Your task to perform on an android device: Search for "usb-b" on target.com, select the first entry, add it to the cart, then select checkout. Image 0: 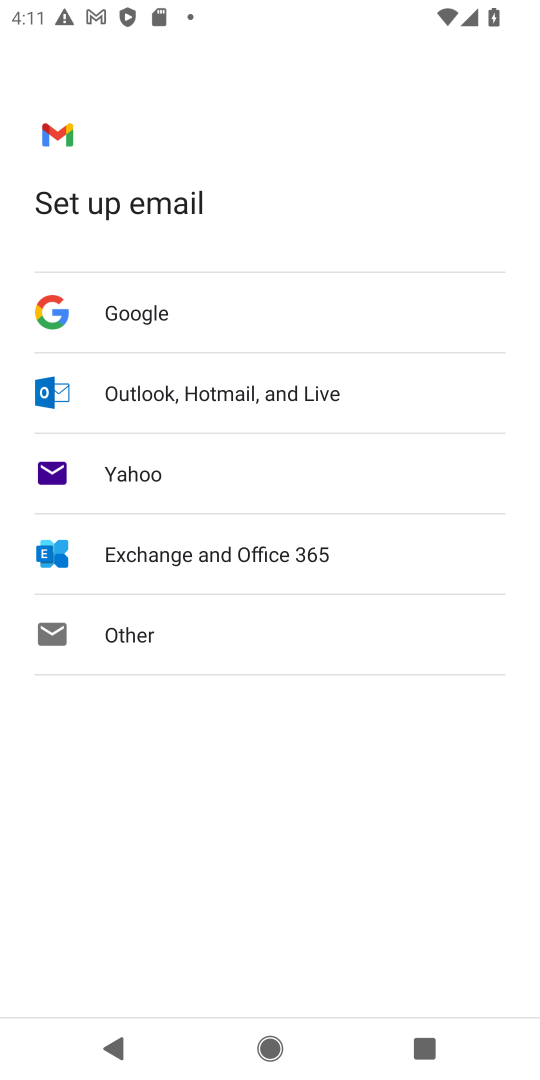
Step 0: press home button
Your task to perform on an android device: Search for "usb-b" on target.com, select the first entry, add it to the cart, then select checkout. Image 1: 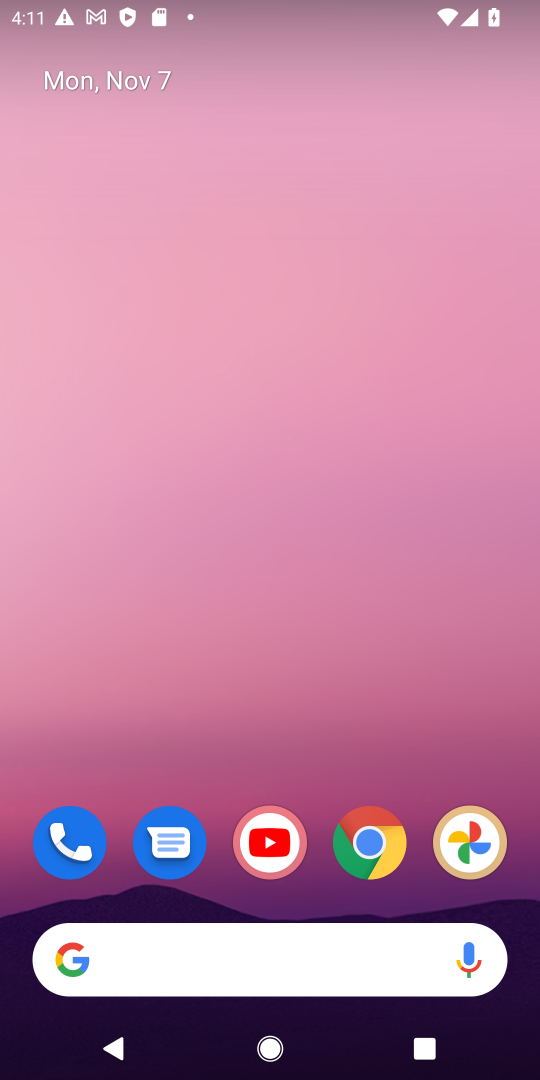
Step 1: drag from (317, 935) to (296, 0)
Your task to perform on an android device: Search for "usb-b" on target.com, select the first entry, add it to the cart, then select checkout. Image 2: 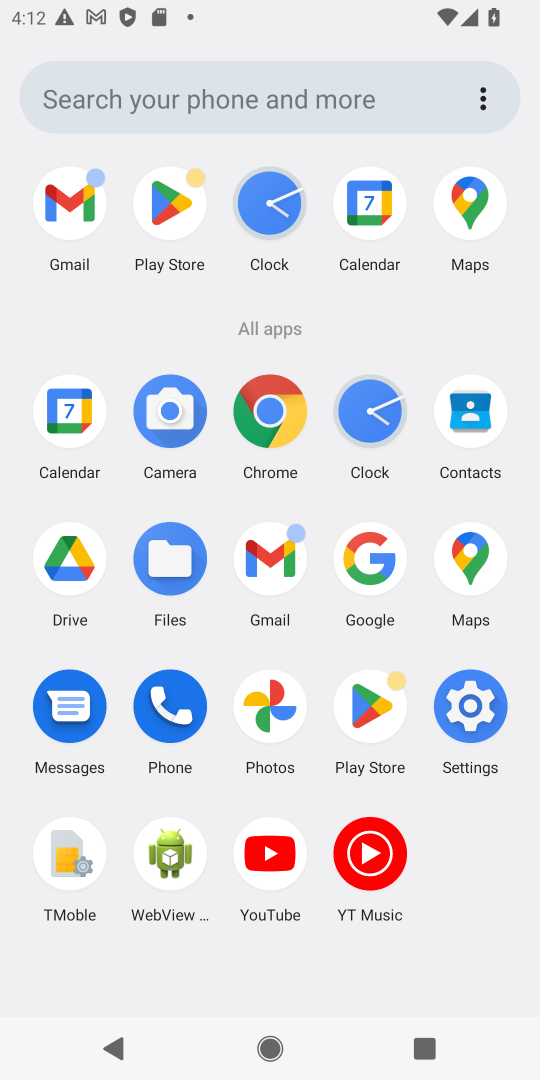
Step 2: click (271, 406)
Your task to perform on an android device: Search for "usb-b" on target.com, select the first entry, add it to the cart, then select checkout. Image 3: 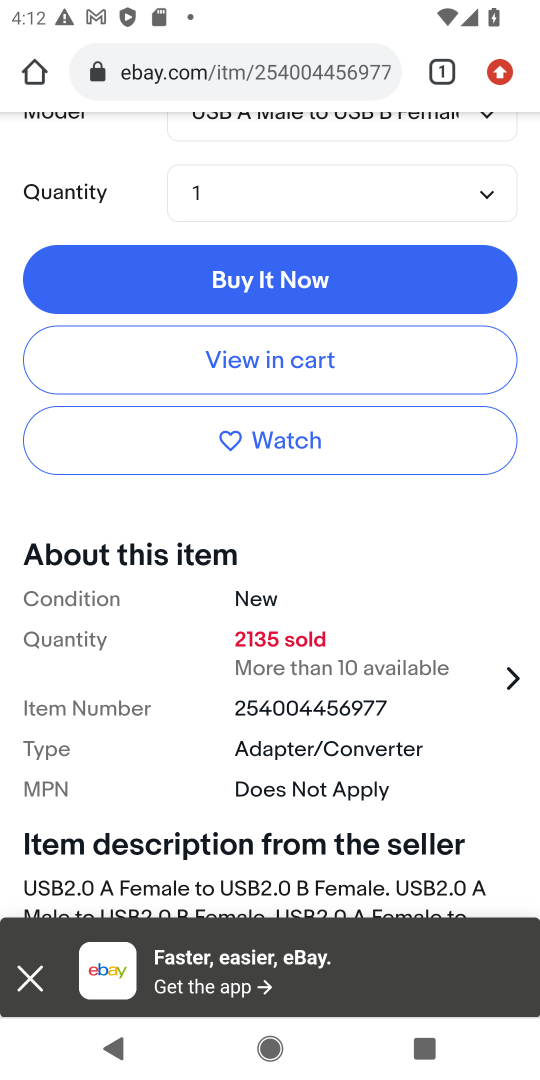
Step 3: click (272, 67)
Your task to perform on an android device: Search for "usb-b" on target.com, select the first entry, add it to the cart, then select checkout. Image 4: 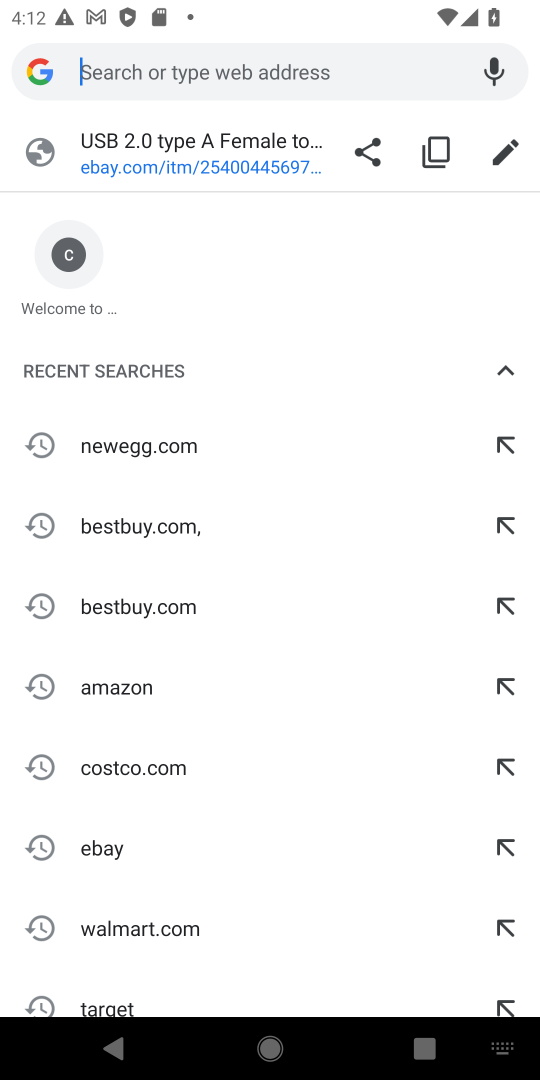
Step 4: type "target.com,"
Your task to perform on an android device: Search for "usb-b" on target.com, select the first entry, add it to the cart, then select checkout. Image 5: 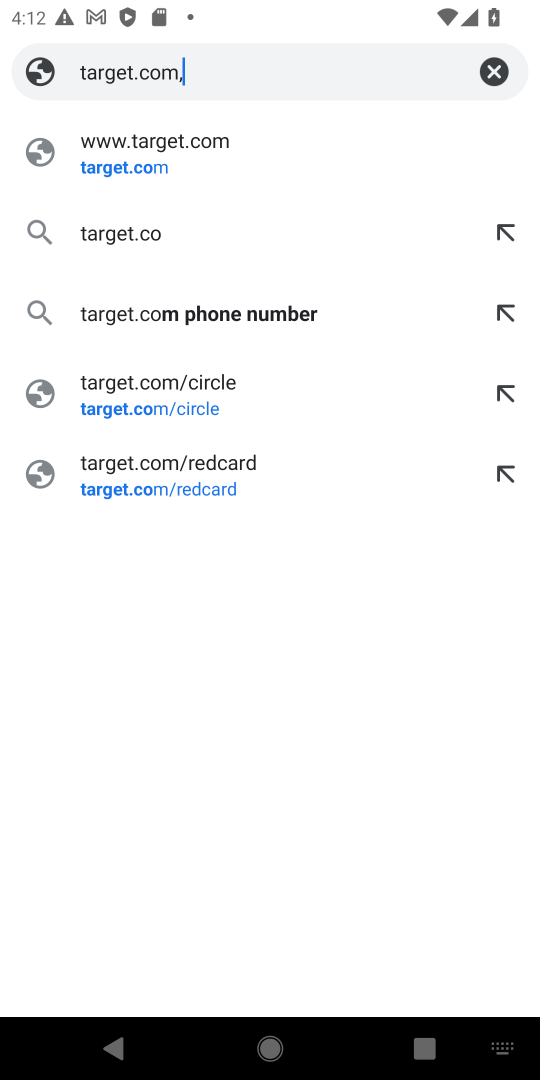
Step 5: press enter
Your task to perform on an android device: Search for "usb-b" on target.com, select the first entry, add it to the cart, then select checkout. Image 6: 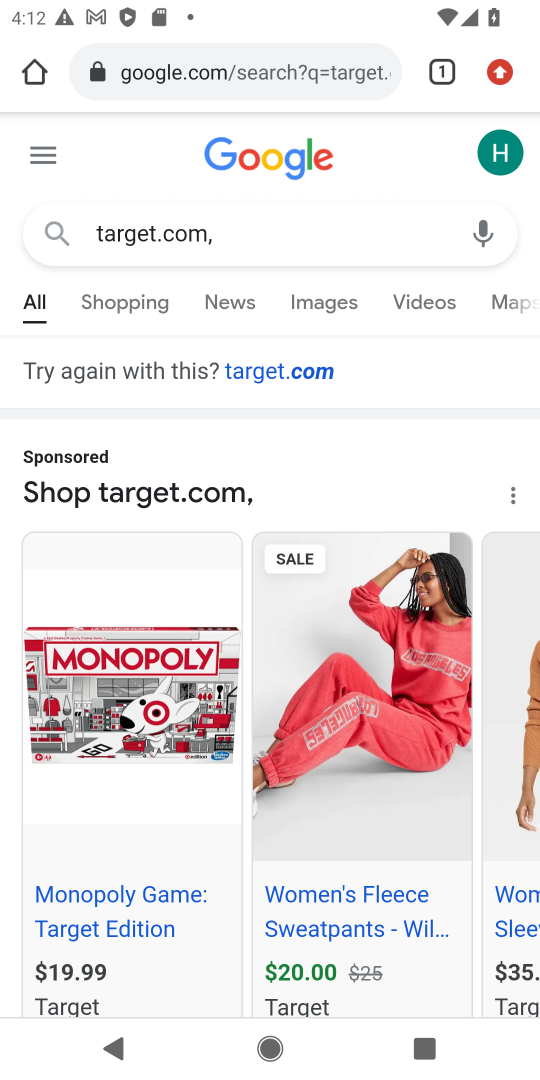
Step 6: drag from (158, 726) to (154, 271)
Your task to perform on an android device: Search for "usb-b" on target.com, select the first entry, add it to the cart, then select checkout. Image 7: 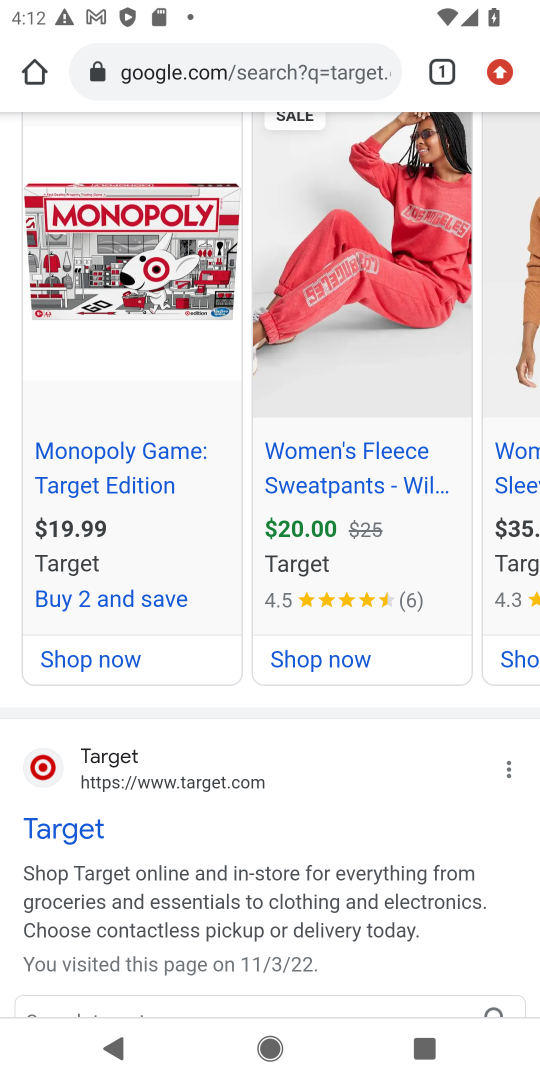
Step 7: click (95, 773)
Your task to perform on an android device: Search for "usb-b" on target.com, select the first entry, add it to the cart, then select checkout. Image 8: 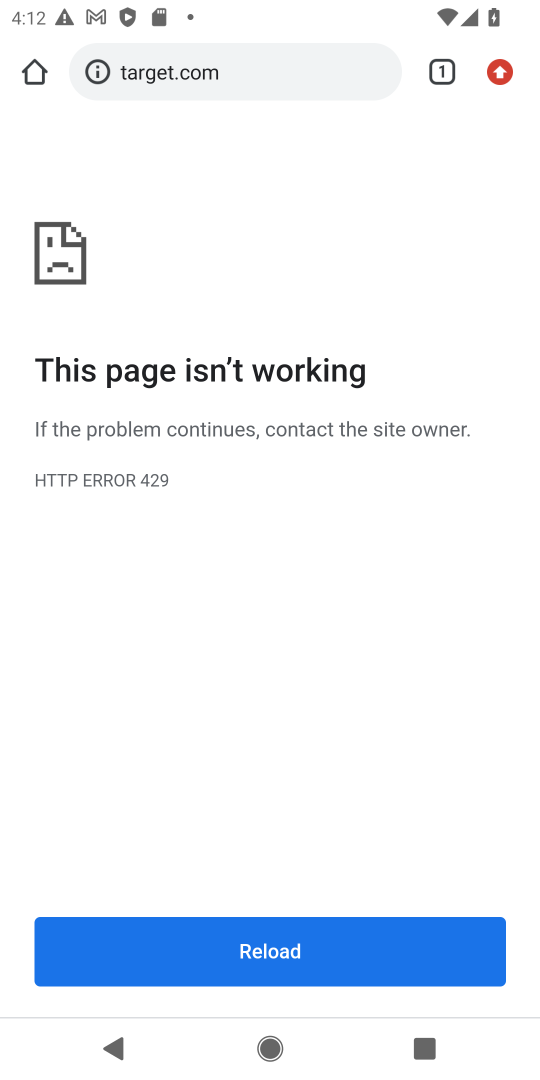
Step 8: click (294, 953)
Your task to perform on an android device: Search for "usb-b" on target.com, select the first entry, add it to the cart, then select checkout. Image 9: 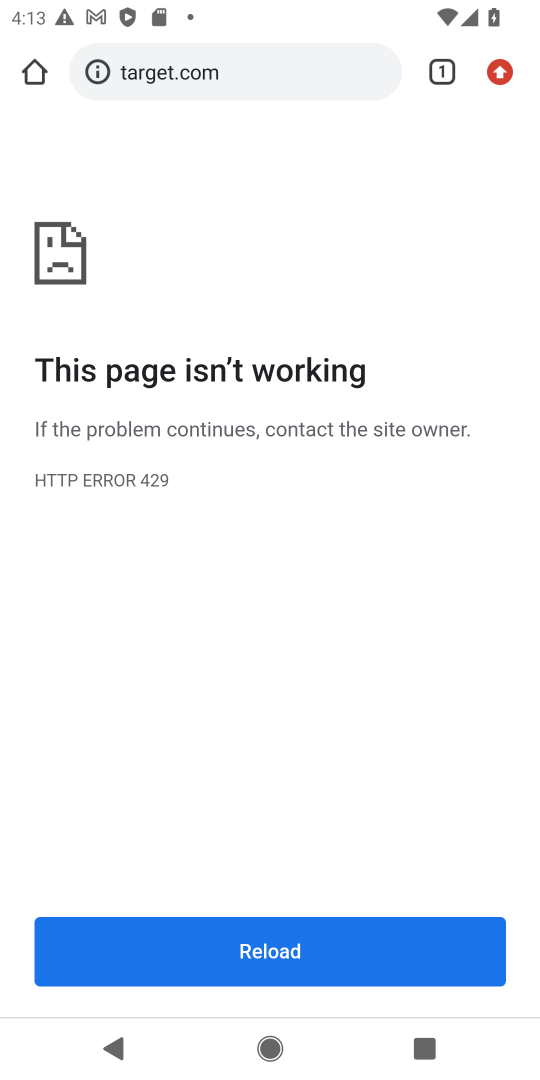
Step 9: click (294, 951)
Your task to perform on an android device: Search for "usb-b" on target.com, select the first entry, add it to the cart, then select checkout. Image 10: 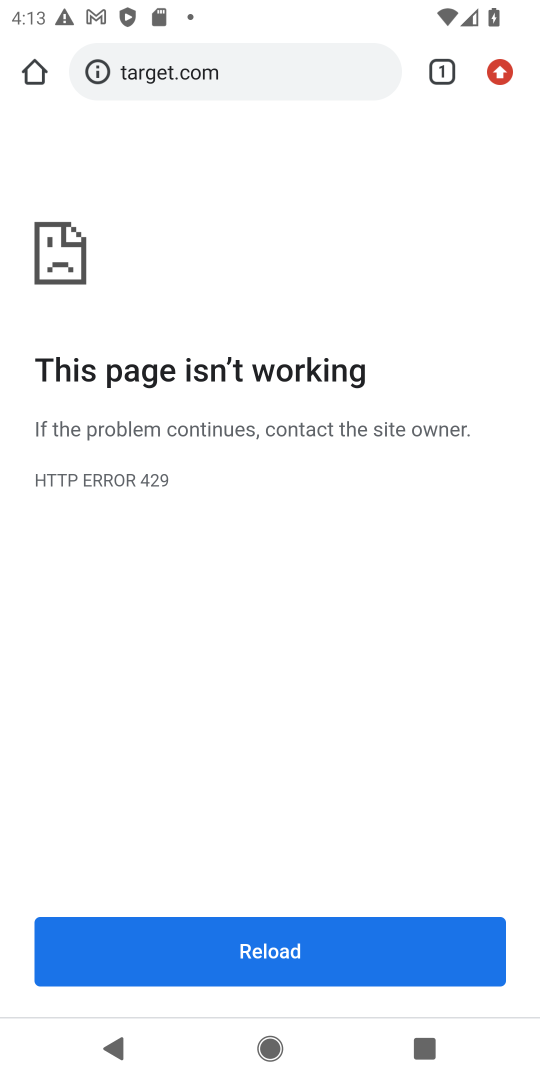
Step 10: click (312, 948)
Your task to perform on an android device: Search for "usb-b" on target.com, select the first entry, add it to the cart, then select checkout. Image 11: 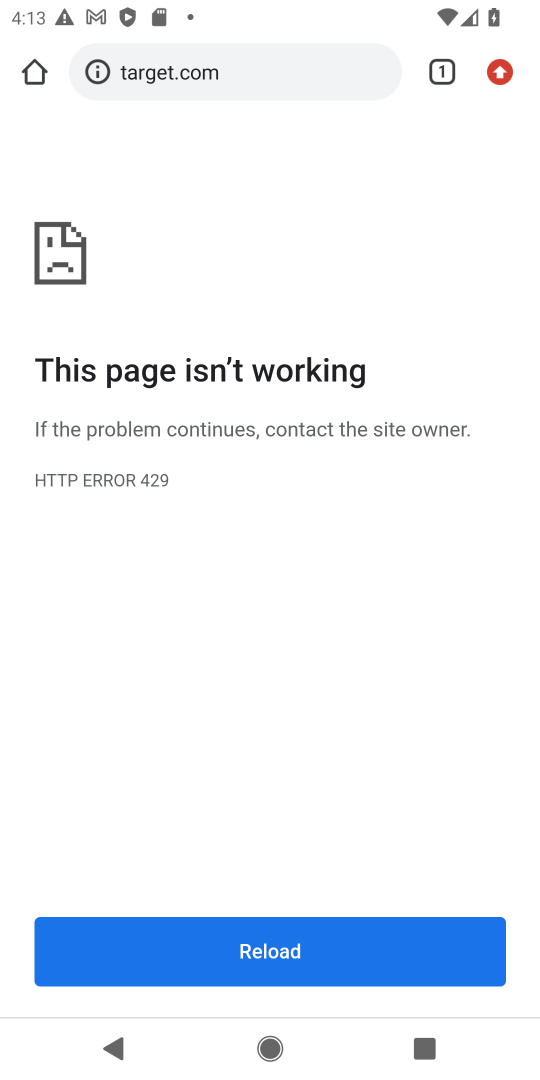
Step 11: click (268, 959)
Your task to perform on an android device: Search for "usb-b" on target.com, select the first entry, add it to the cart, then select checkout. Image 12: 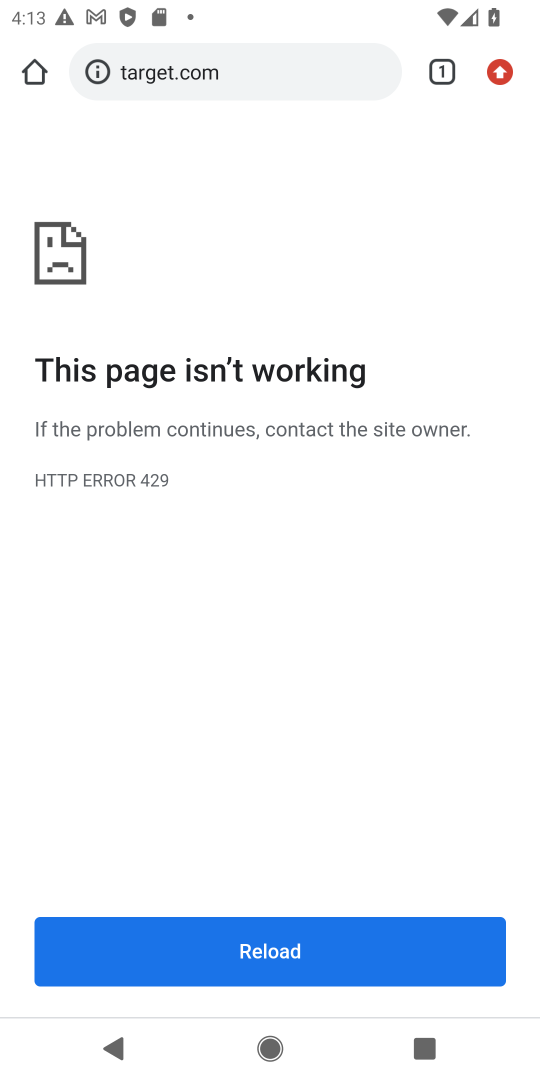
Step 12: task complete